Your task to perform on an android device: Search for pizza restaurants on Maps Image 0: 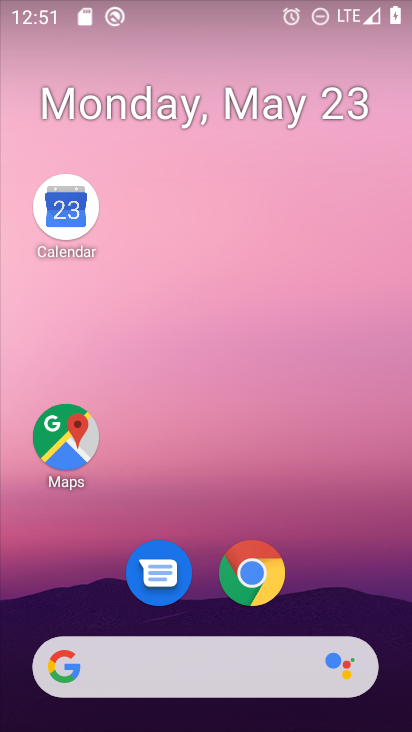
Step 0: click (63, 434)
Your task to perform on an android device: Search for pizza restaurants on Maps Image 1: 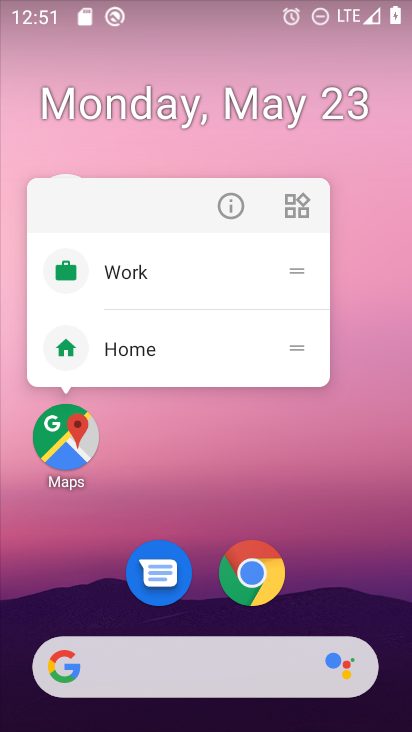
Step 1: click (63, 434)
Your task to perform on an android device: Search for pizza restaurants on Maps Image 2: 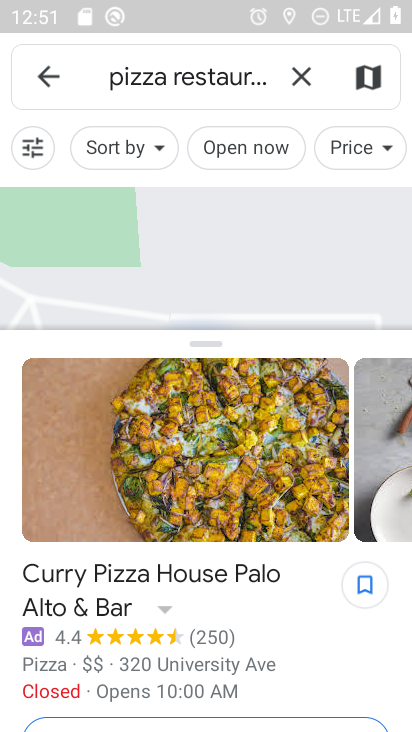
Step 2: task complete